Your task to perform on an android device: Open calendar and show me the first week of next month Image 0: 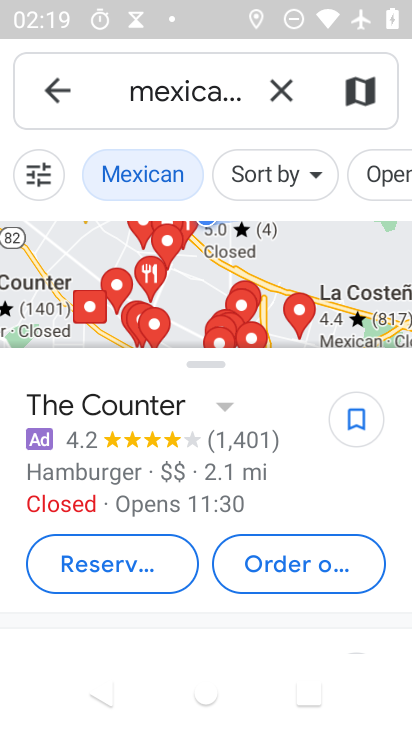
Step 0: press home button
Your task to perform on an android device: Open calendar and show me the first week of next month Image 1: 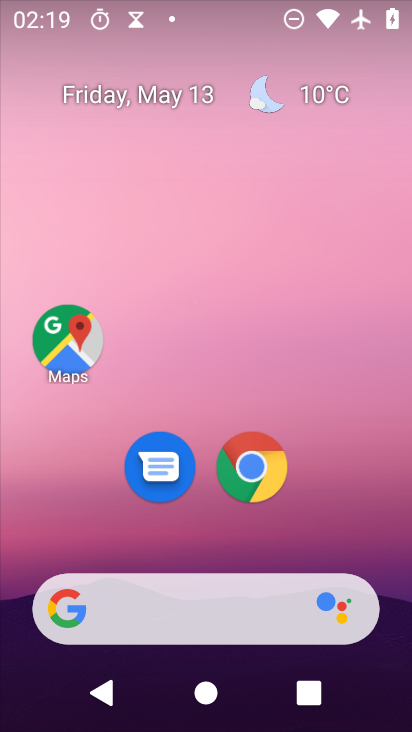
Step 1: click (129, 84)
Your task to perform on an android device: Open calendar and show me the first week of next month Image 2: 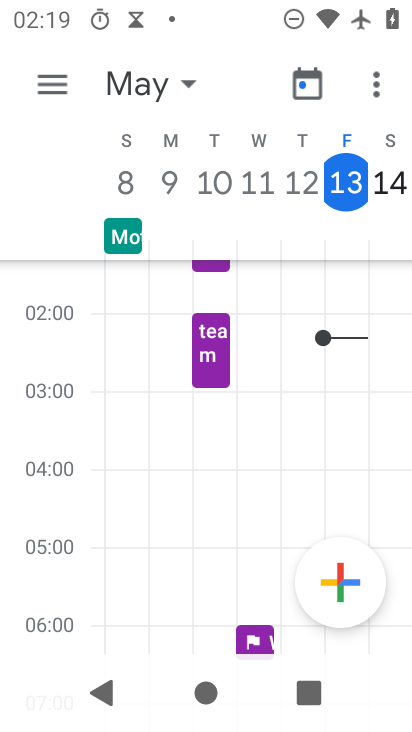
Step 2: drag from (274, 235) to (300, 326)
Your task to perform on an android device: Open calendar and show me the first week of next month Image 3: 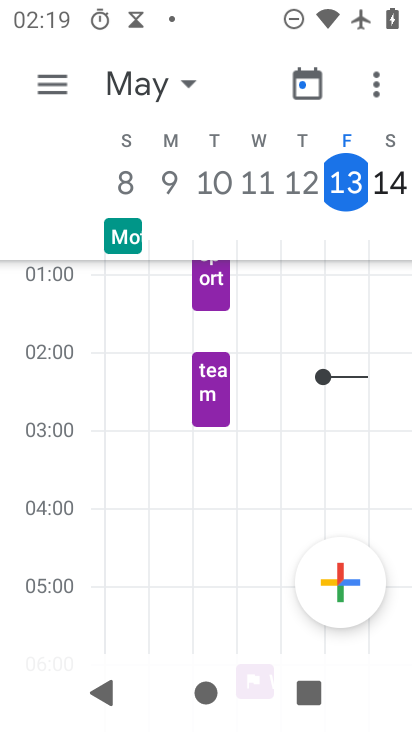
Step 3: click (147, 83)
Your task to perform on an android device: Open calendar and show me the first week of next month Image 4: 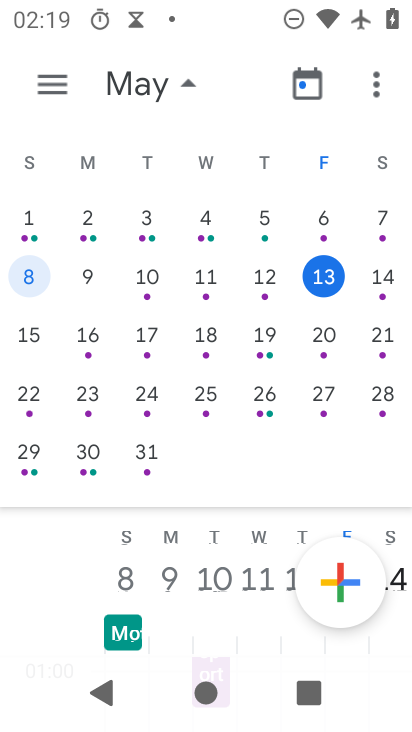
Step 4: task complete